Your task to perform on an android device: open a new tab in the chrome app Image 0: 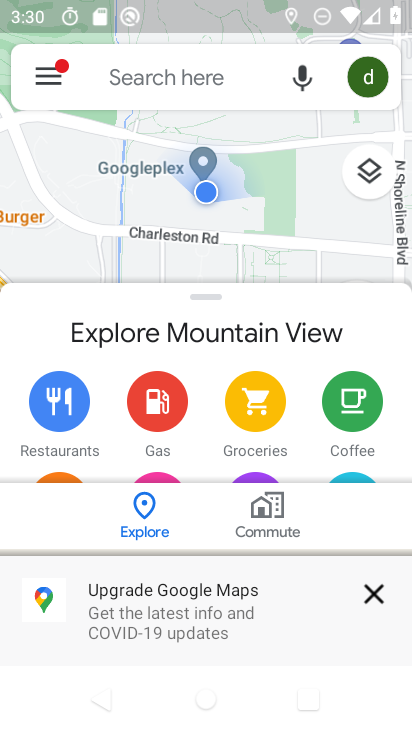
Step 0: press home button
Your task to perform on an android device: open a new tab in the chrome app Image 1: 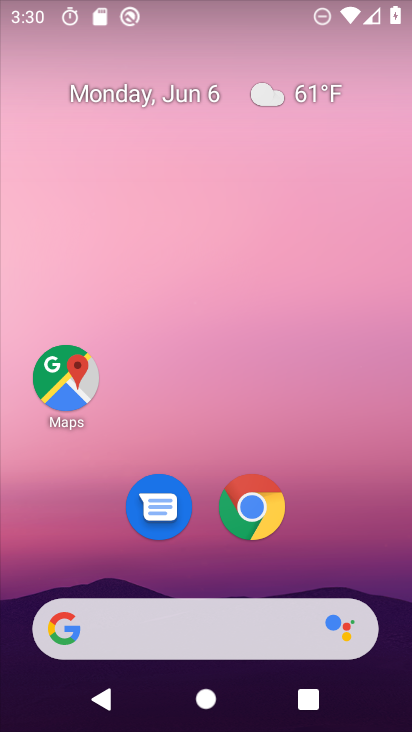
Step 1: click (274, 511)
Your task to perform on an android device: open a new tab in the chrome app Image 2: 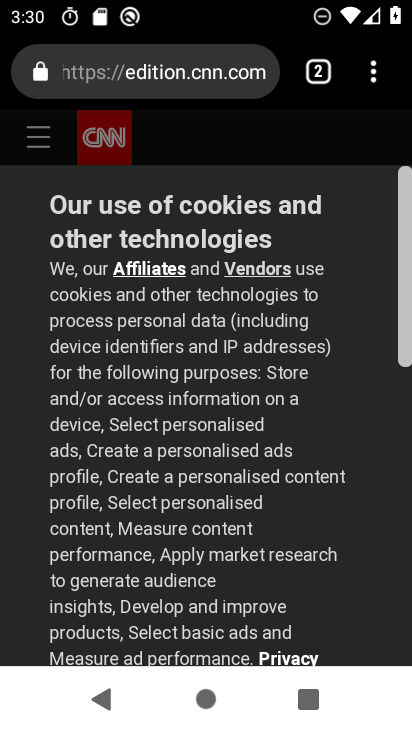
Step 2: click (320, 68)
Your task to perform on an android device: open a new tab in the chrome app Image 3: 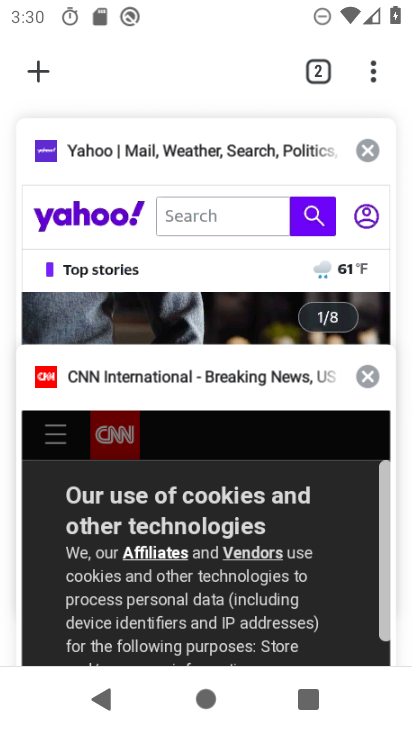
Step 3: click (38, 55)
Your task to perform on an android device: open a new tab in the chrome app Image 4: 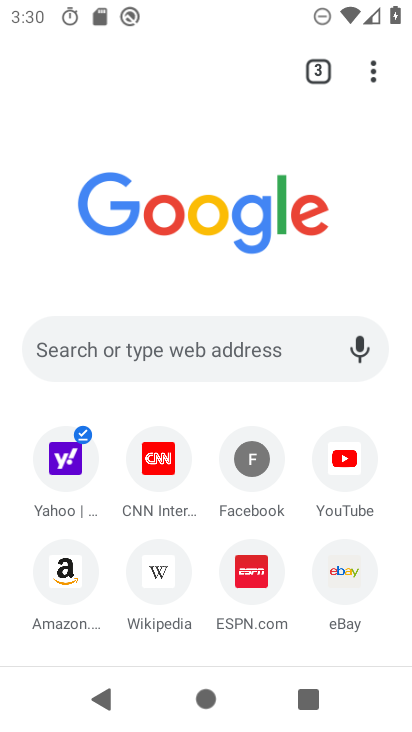
Step 4: task complete